Your task to perform on an android device: Open the settings Image 0: 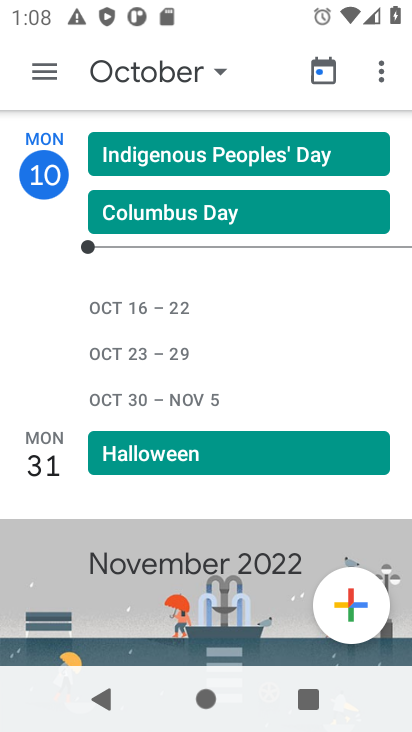
Step 0: press home button
Your task to perform on an android device: Open the settings Image 1: 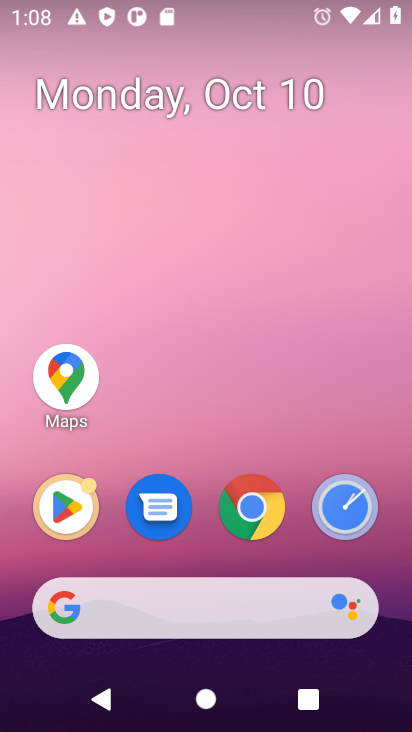
Step 1: drag from (398, 576) to (381, 112)
Your task to perform on an android device: Open the settings Image 2: 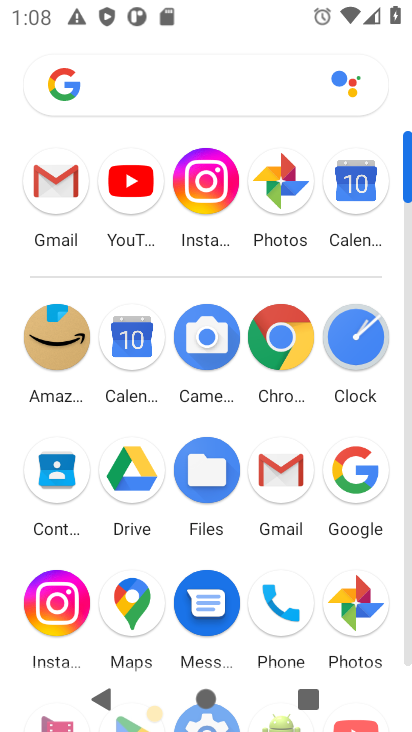
Step 2: drag from (387, 557) to (388, 268)
Your task to perform on an android device: Open the settings Image 3: 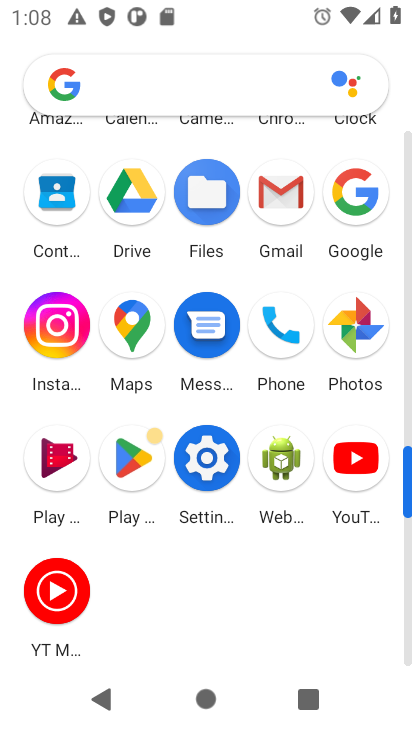
Step 3: click (196, 458)
Your task to perform on an android device: Open the settings Image 4: 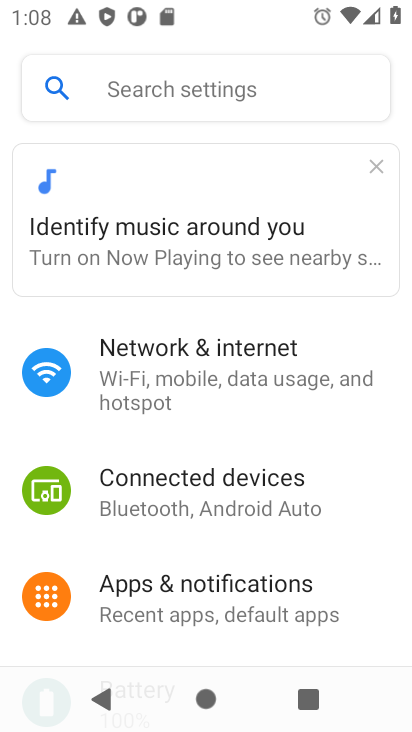
Step 4: task complete